Your task to perform on an android device: show emergency info Image 0: 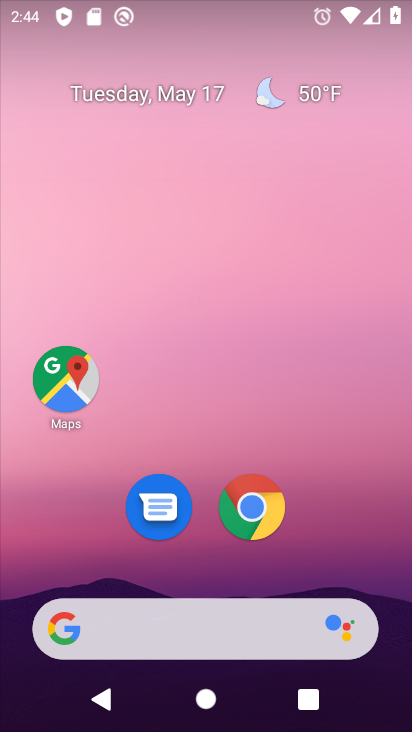
Step 0: drag from (344, 522) to (218, 66)
Your task to perform on an android device: show emergency info Image 1: 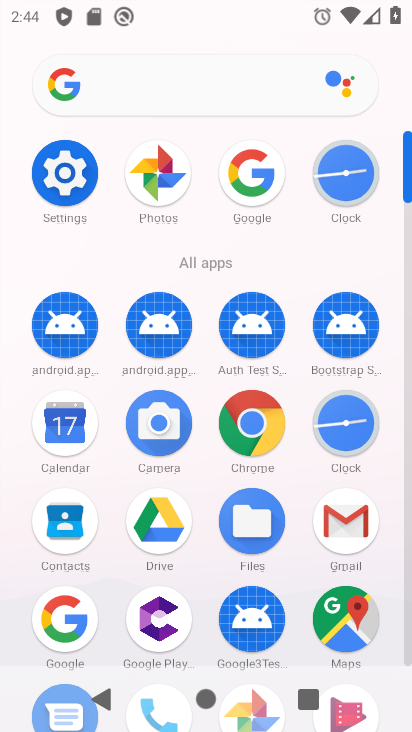
Step 1: click (68, 183)
Your task to perform on an android device: show emergency info Image 2: 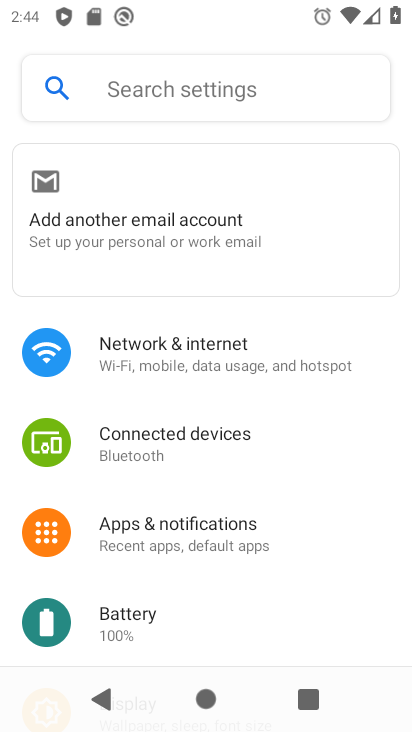
Step 2: drag from (278, 492) to (238, 131)
Your task to perform on an android device: show emergency info Image 3: 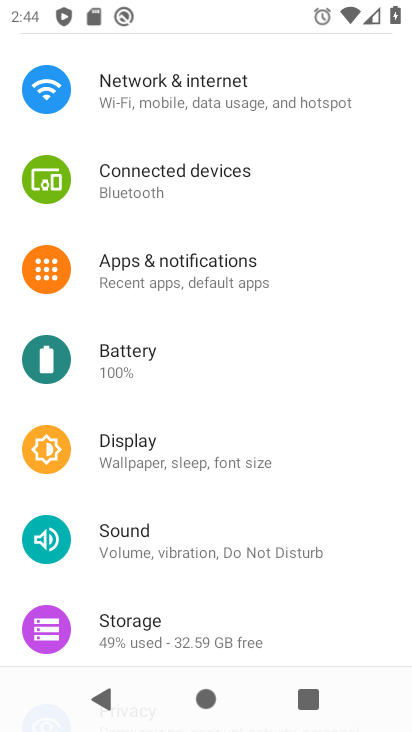
Step 3: drag from (235, 562) to (241, 125)
Your task to perform on an android device: show emergency info Image 4: 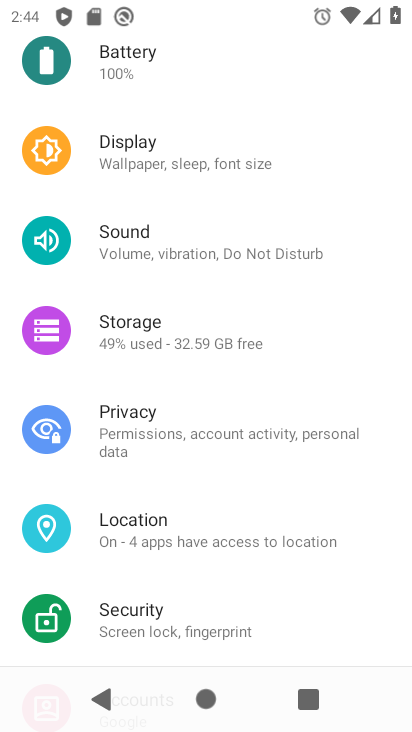
Step 4: drag from (253, 587) to (257, 85)
Your task to perform on an android device: show emergency info Image 5: 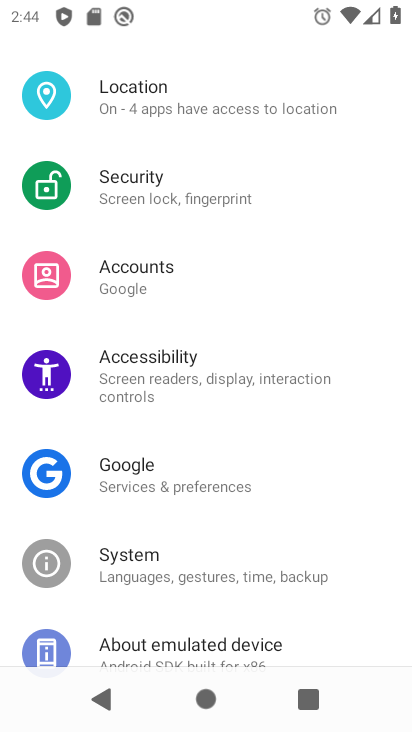
Step 5: drag from (273, 600) to (221, 3)
Your task to perform on an android device: show emergency info Image 6: 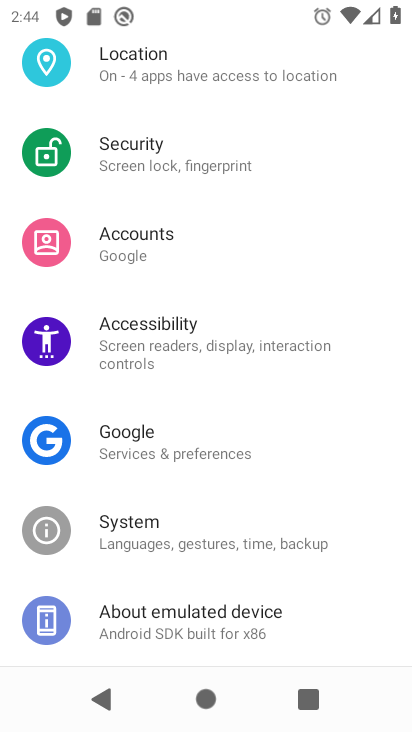
Step 6: drag from (240, 536) to (208, 73)
Your task to perform on an android device: show emergency info Image 7: 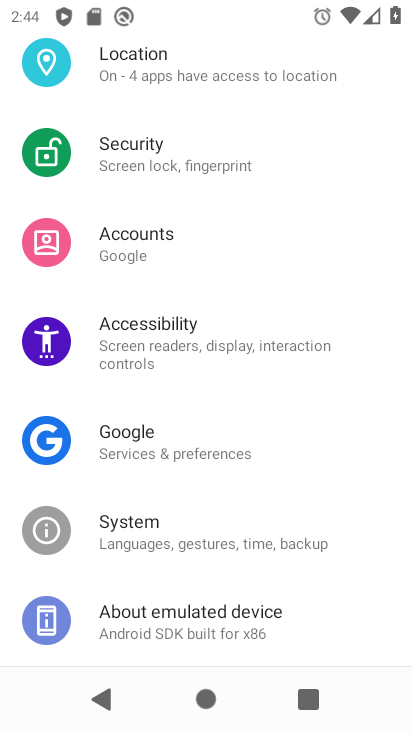
Step 7: click (222, 611)
Your task to perform on an android device: show emergency info Image 8: 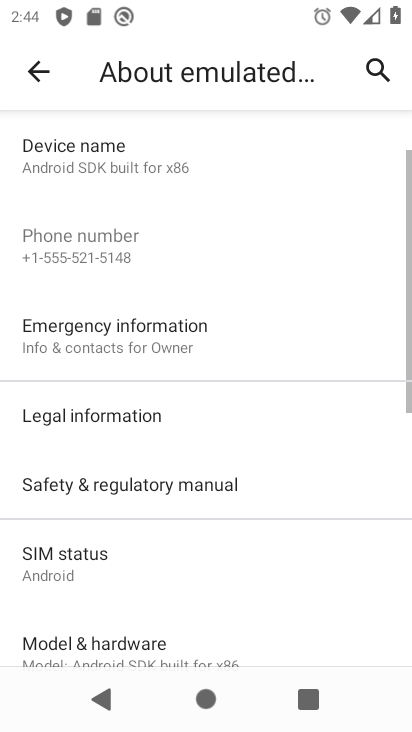
Step 8: click (191, 341)
Your task to perform on an android device: show emergency info Image 9: 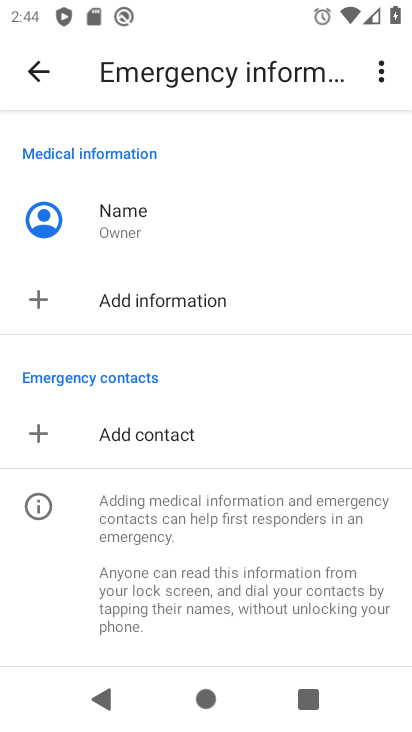
Step 9: task complete